Your task to perform on an android device: Open Android settings Image 0: 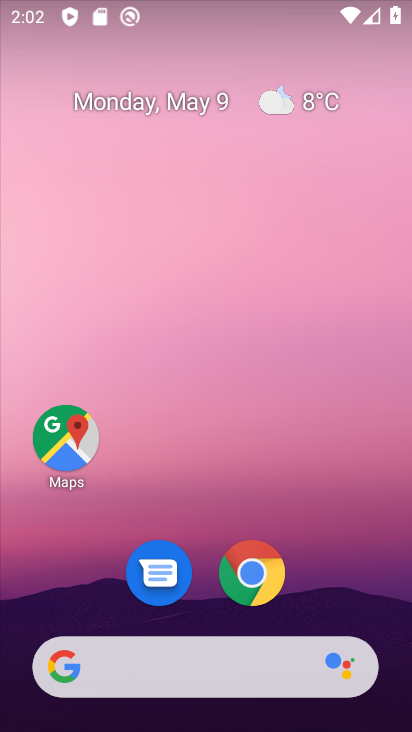
Step 0: drag from (180, 662) to (261, 200)
Your task to perform on an android device: Open Android settings Image 1: 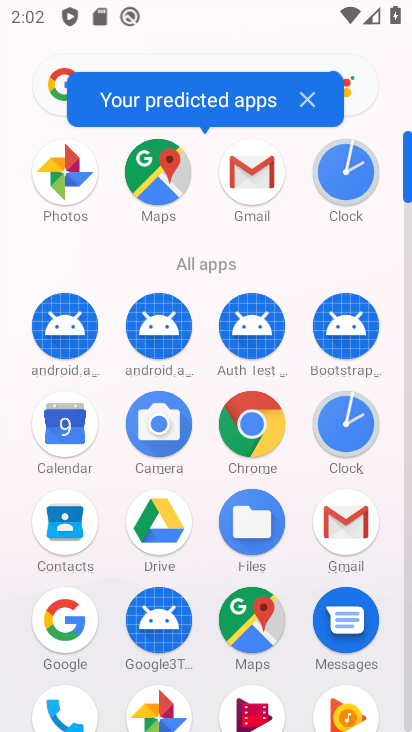
Step 1: drag from (196, 595) to (311, 237)
Your task to perform on an android device: Open Android settings Image 2: 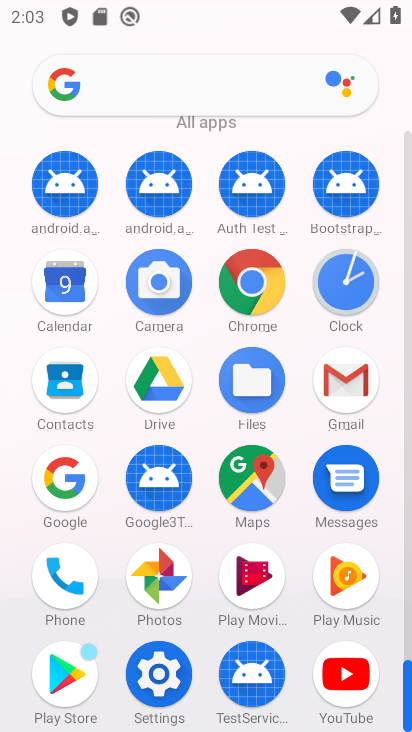
Step 2: click (158, 677)
Your task to perform on an android device: Open Android settings Image 3: 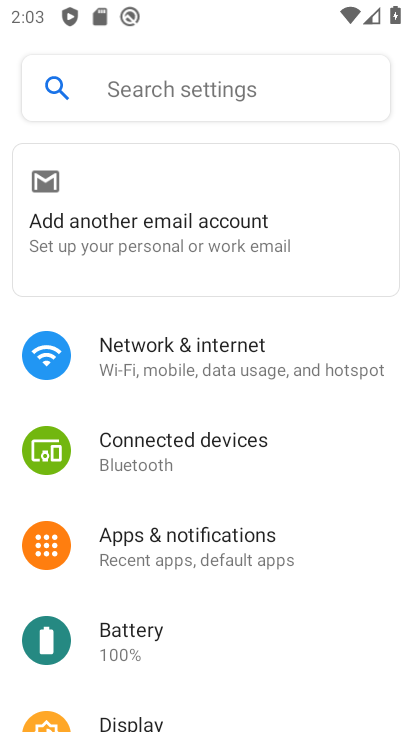
Step 3: drag from (193, 702) to (329, 100)
Your task to perform on an android device: Open Android settings Image 4: 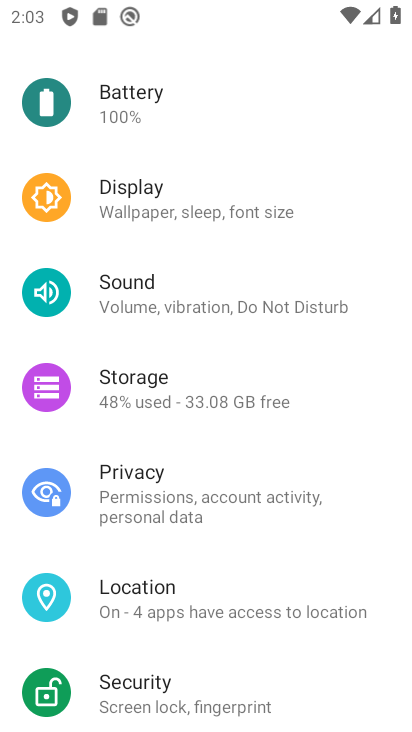
Step 4: drag from (192, 613) to (271, 145)
Your task to perform on an android device: Open Android settings Image 5: 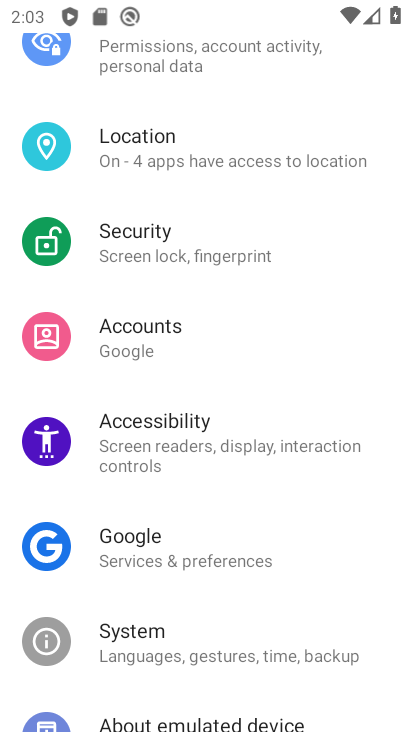
Step 5: drag from (199, 655) to (302, 244)
Your task to perform on an android device: Open Android settings Image 6: 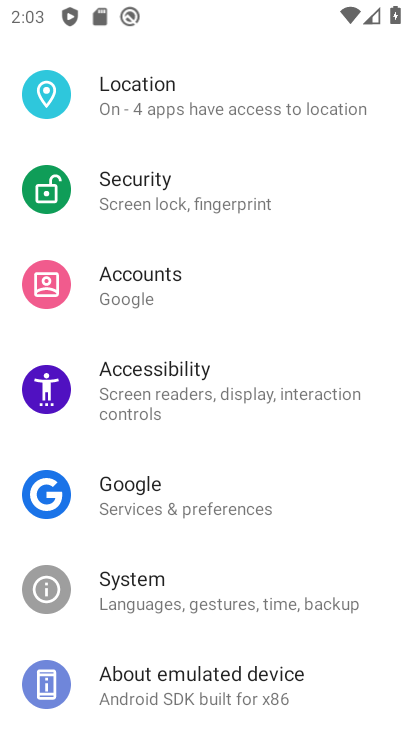
Step 6: click (215, 686)
Your task to perform on an android device: Open Android settings Image 7: 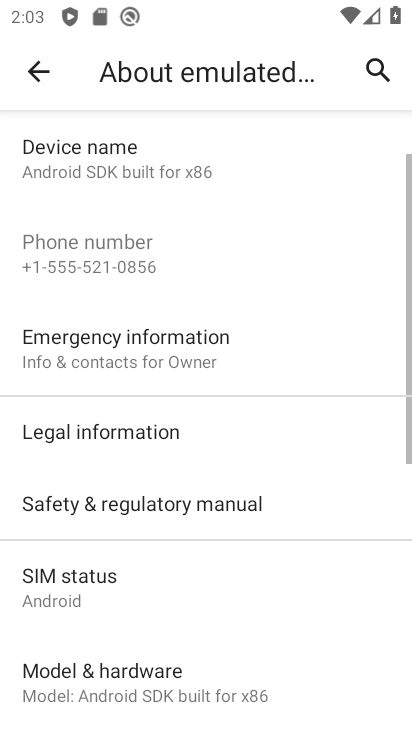
Step 7: click (263, 205)
Your task to perform on an android device: Open Android settings Image 8: 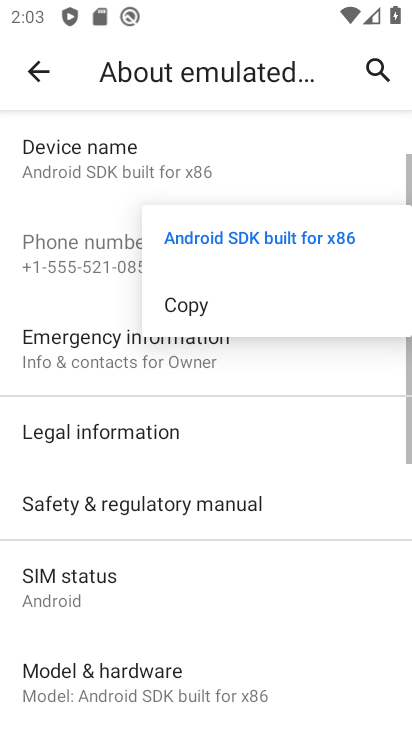
Step 8: task complete